Your task to perform on an android device: Go to display settings Image 0: 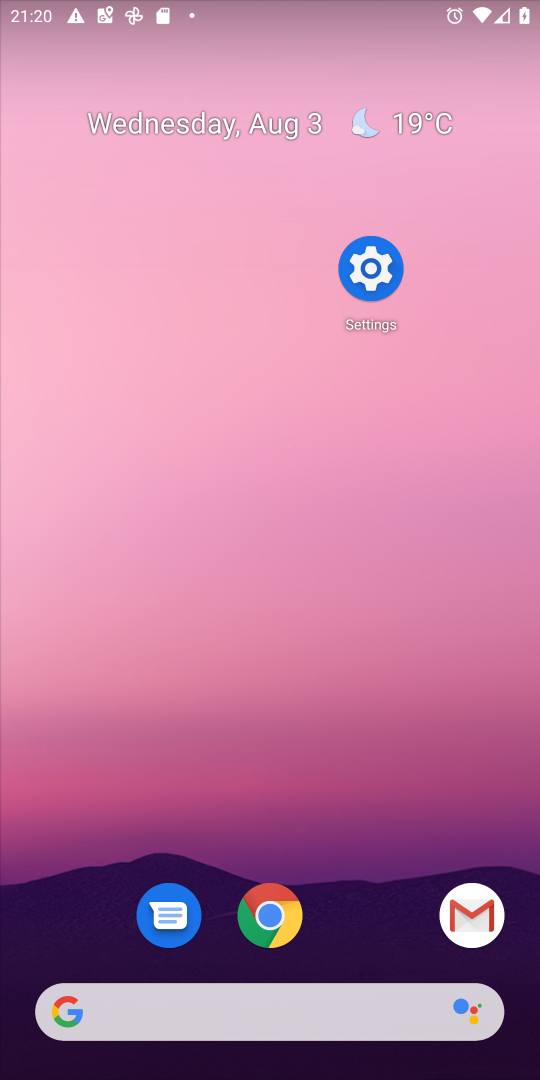
Step 0: press home button
Your task to perform on an android device: Go to display settings Image 1: 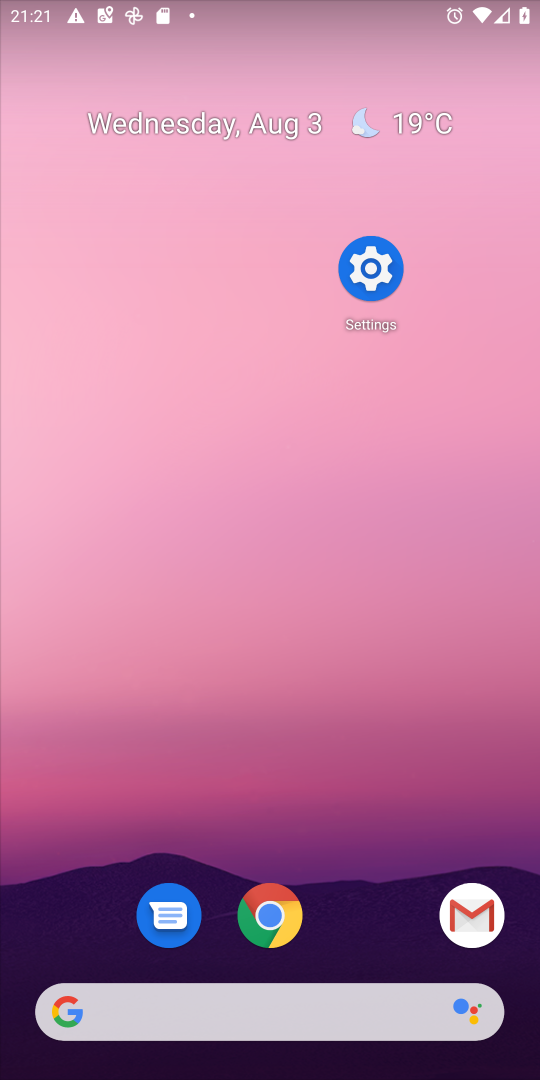
Step 1: drag from (279, 1044) to (274, 416)
Your task to perform on an android device: Go to display settings Image 2: 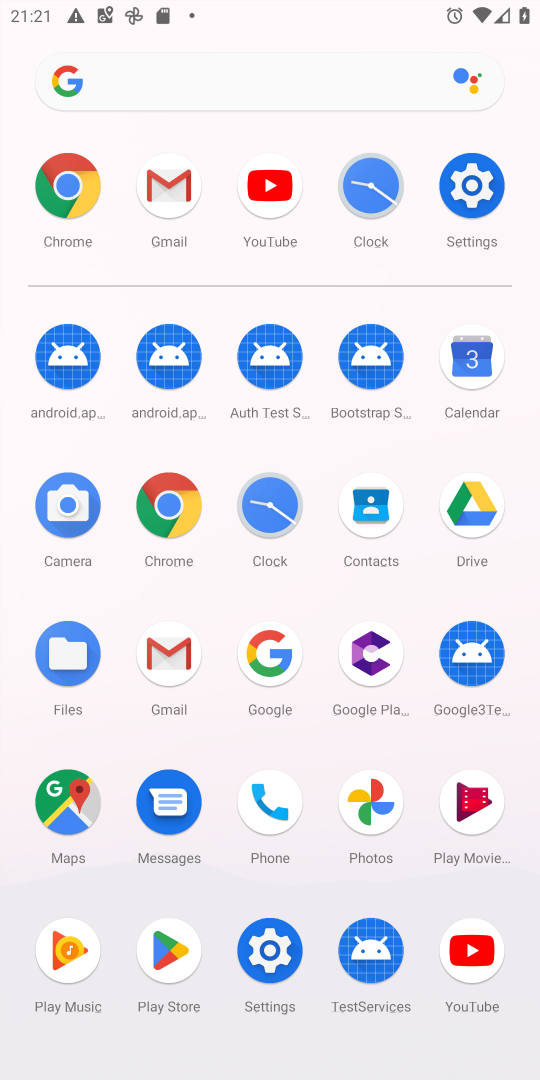
Step 2: click (473, 200)
Your task to perform on an android device: Go to display settings Image 3: 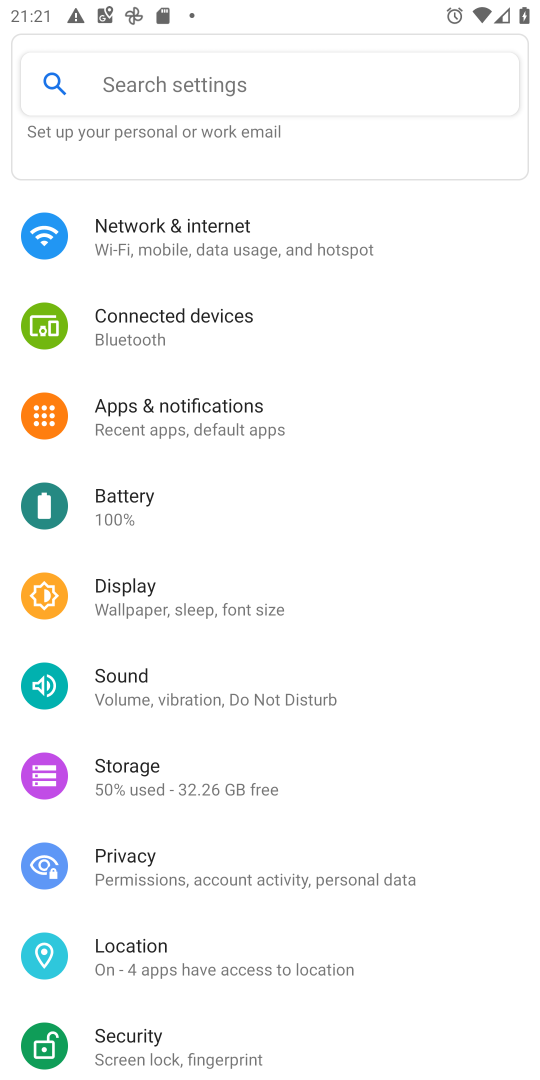
Step 3: click (123, 599)
Your task to perform on an android device: Go to display settings Image 4: 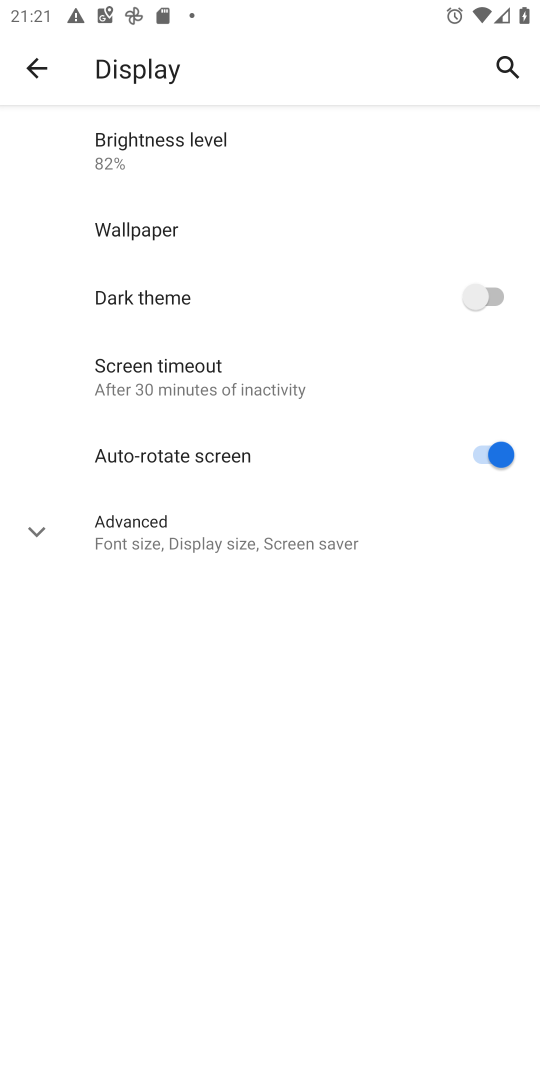
Step 4: task complete